Your task to perform on an android device: open app "ZOOM Cloud Meetings" (install if not already installed) and enter user name: "bauxite@icloud.com" and password: "dim" Image 0: 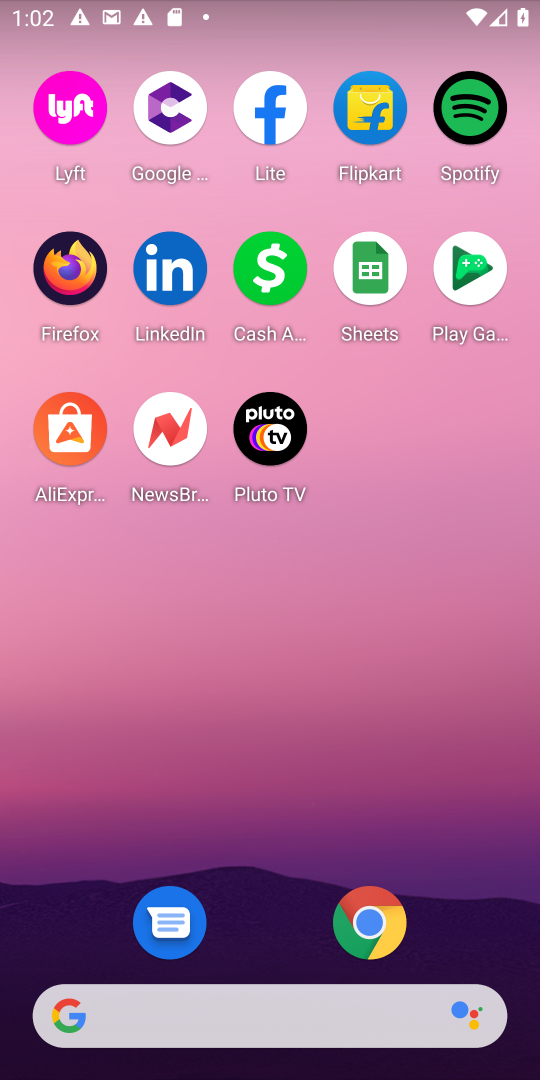
Step 0: drag from (284, 583) to (404, 5)
Your task to perform on an android device: open app "ZOOM Cloud Meetings" (install if not already installed) and enter user name: "bauxite@icloud.com" and password: "dim" Image 1: 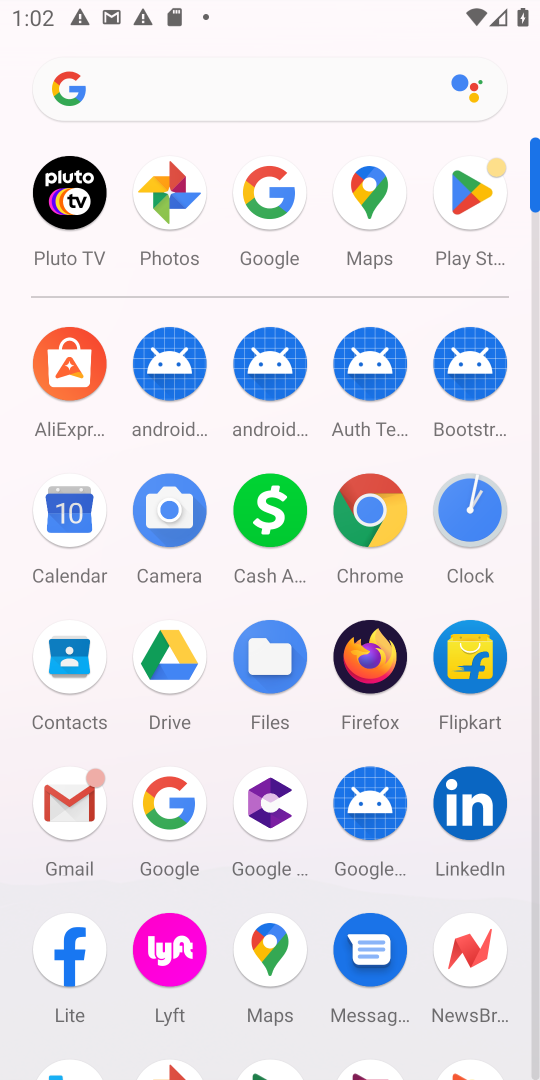
Step 1: click (472, 176)
Your task to perform on an android device: open app "ZOOM Cloud Meetings" (install if not already installed) and enter user name: "bauxite@icloud.com" and password: "dim" Image 2: 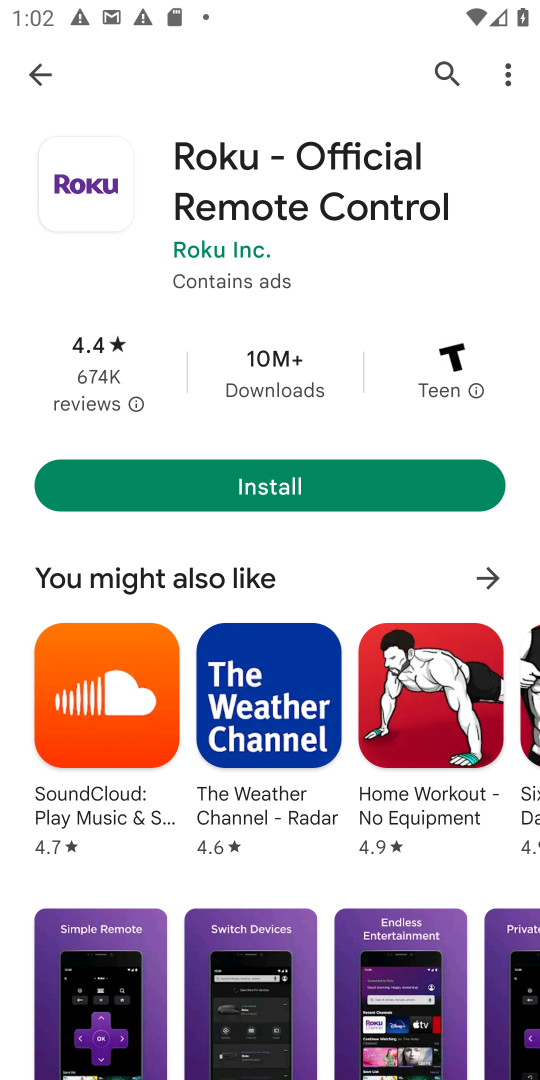
Step 2: click (37, 81)
Your task to perform on an android device: open app "ZOOM Cloud Meetings" (install if not already installed) and enter user name: "bauxite@icloud.com" and password: "dim" Image 3: 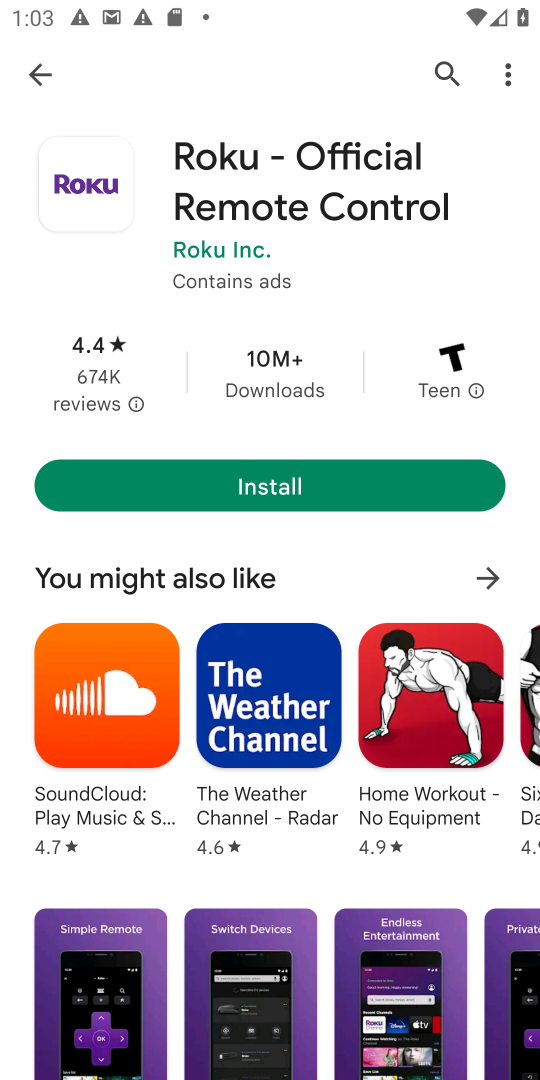
Step 3: click (39, 81)
Your task to perform on an android device: open app "ZOOM Cloud Meetings" (install if not already installed) and enter user name: "bauxite@icloud.com" and password: "dim" Image 4: 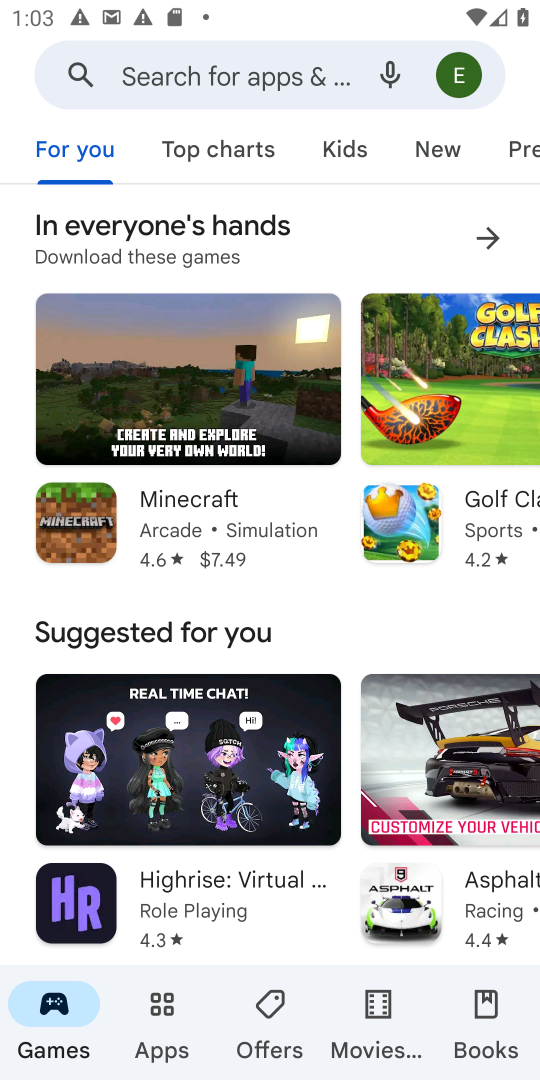
Step 4: click (246, 67)
Your task to perform on an android device: open app "ZOOM Cloud Meetings" (install if not already installed) and enter user name: "bauxite@icloud.com" and password: "dim" Image 5: 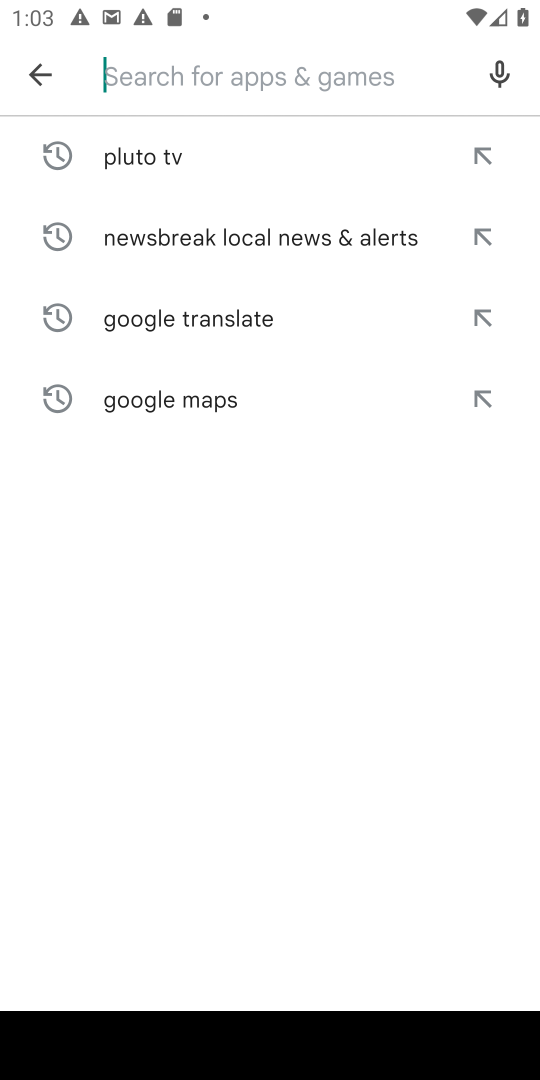
Step 5: type "ZOOM Cloud Meetings"
Your task to perform on an android device: open app "ZOOM Cloud Meetings" (install if not already installed) and enter user name: "bauxite@icloud.com" and password: "dim" Image 6: 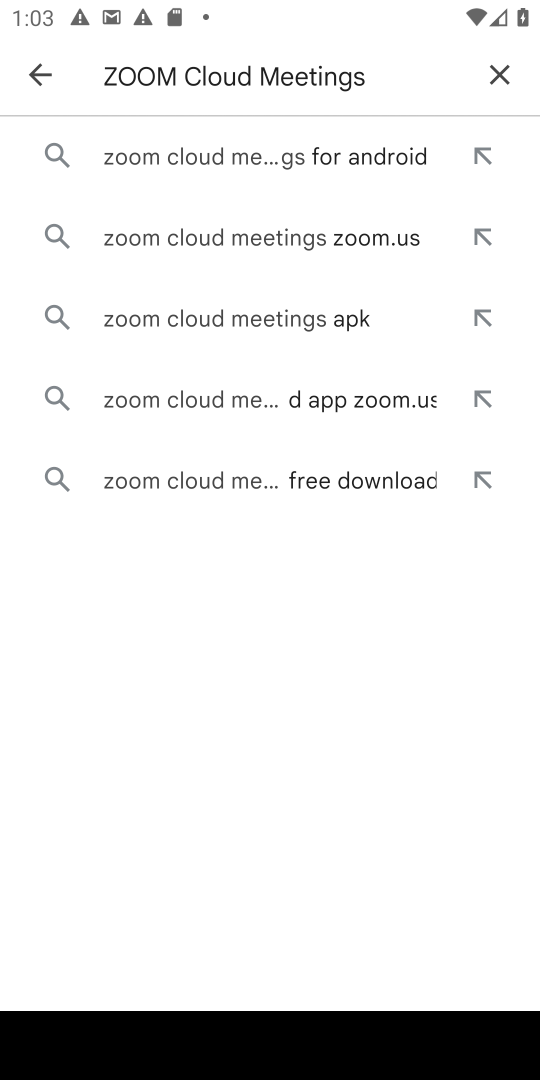
Step 6: click (347, 149)
Your task to perform on an android device: open app "ZOOM Cloud Meetings" (install if not already installed) and enter user name: "bauxite@icloud.com" and password: "dim" Image 7: 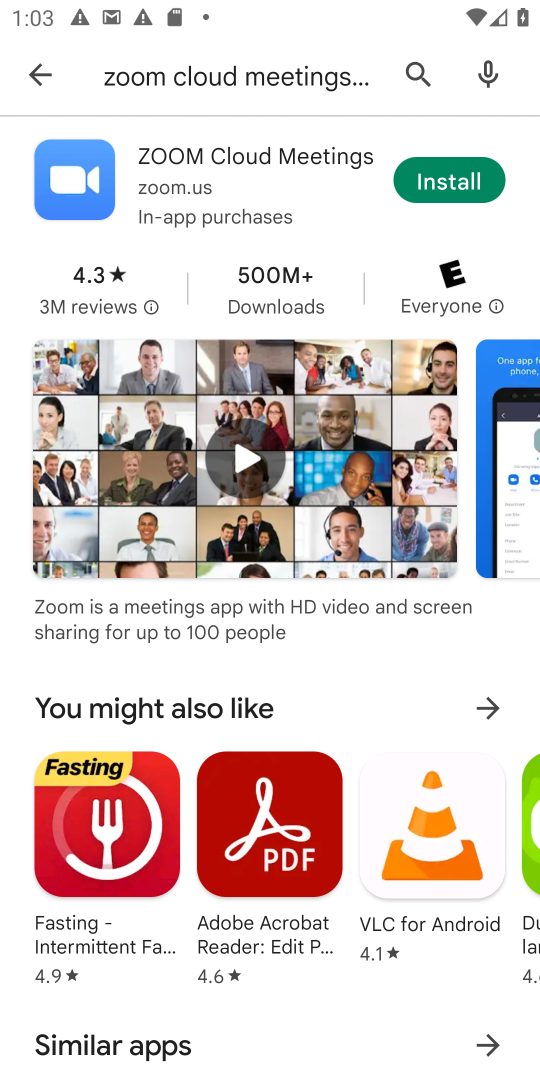
Step 7: click (430, 182)
Your task to perform on an android device: open app "ZOOM Cloud Meetings" (install if not already installed) and enter user name: "bauxite@icloud.com" and password: "dim" Image 8: 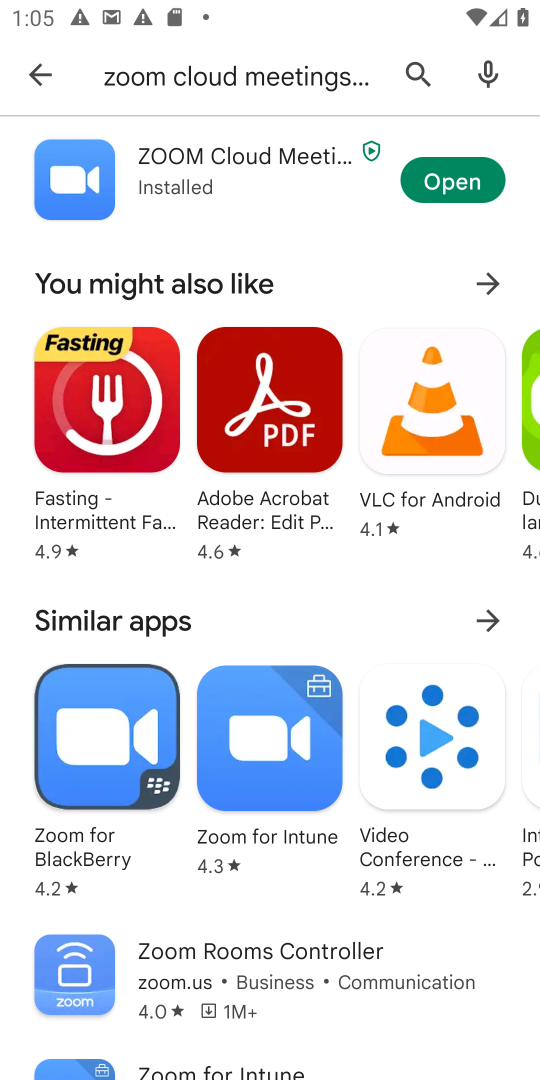
Step 8: click (454, 173)
Your task to perform on an android device: open app "ZOOM Cloud Meetings" (install if not already installed) and enter user name: "bauxite@icloud.com" and password: "dim" Image 9: 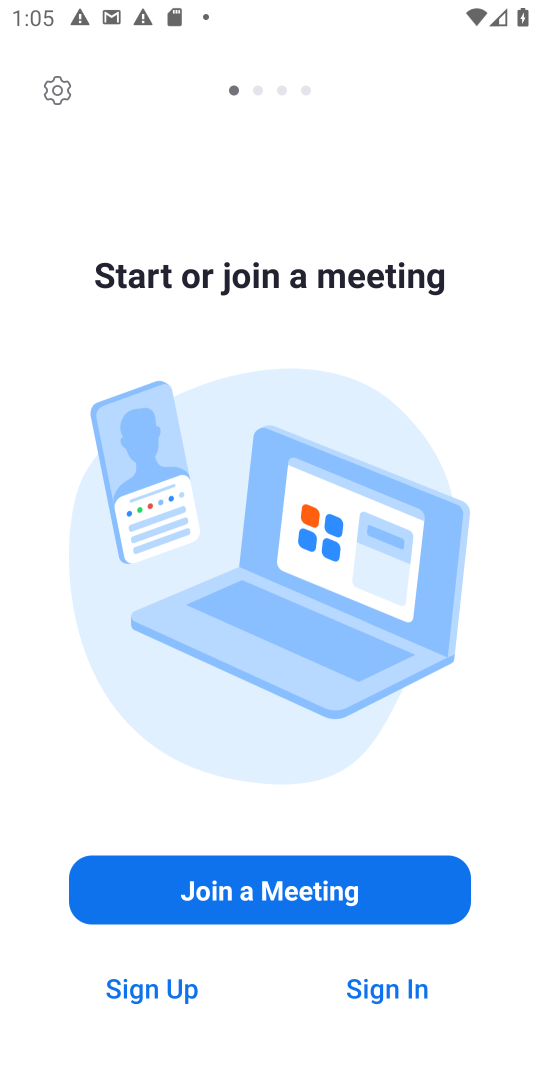
Step 9: click (387, 991)
Your task to perform on an android device: open app "ZOOM Cloud Meetings" (install if not already installed) and enter user name: "bauxite@icloud.com" and password: "dim" Image 10: 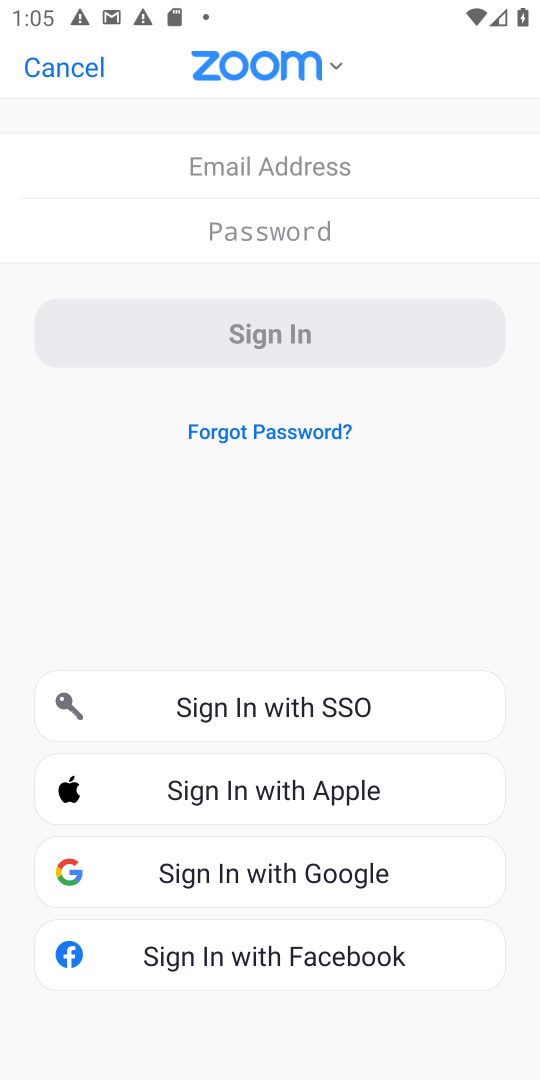
Step 10: click (278, 165)
Your task to perform on an android device: open app "ZOOM Cloud Meetings" (install if not already installed) and enter user name: "bauxite@icloud.com" and password: "dim" Image 11: 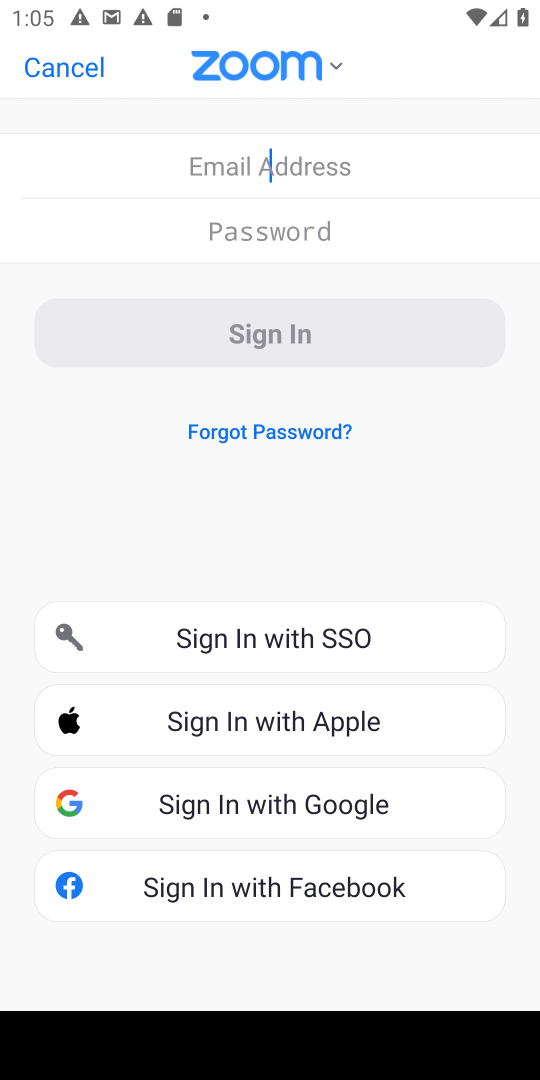
Step 11: type "bauxite@icloud.com"
Your task to perform on an android device: open app "ZOOM Cloud Meetings" (install if not already installed) and enter user name: "bauxite@icloud.com" and password: "dim" Image 12: 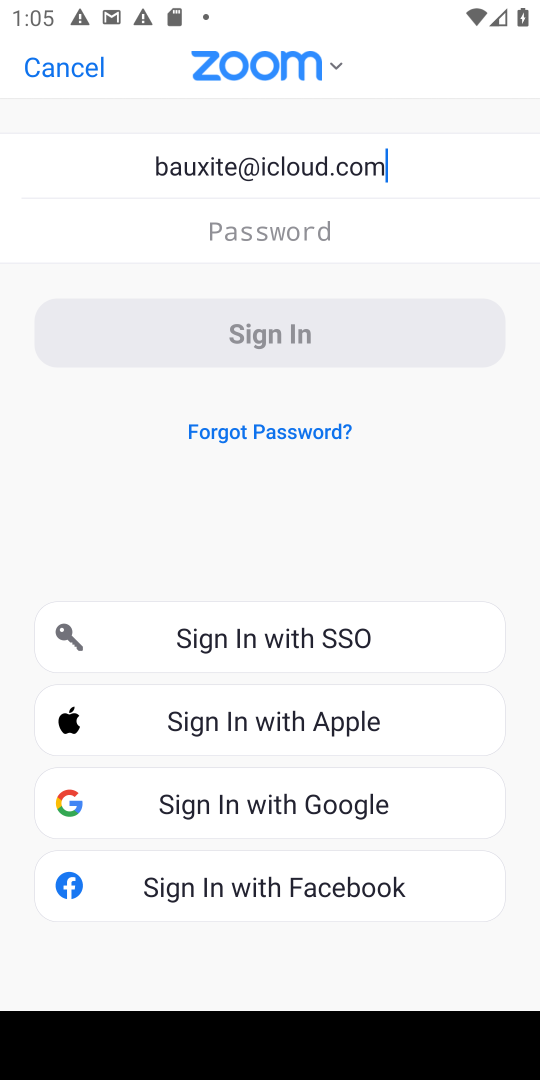
Step 12: click (289, 228)
Your task to perform on an android device: open app "ZOOM Cloud Meetings" (install if not already installed) and enter user name: "bauxite@icloud.com" and password: "dim" Image 13: 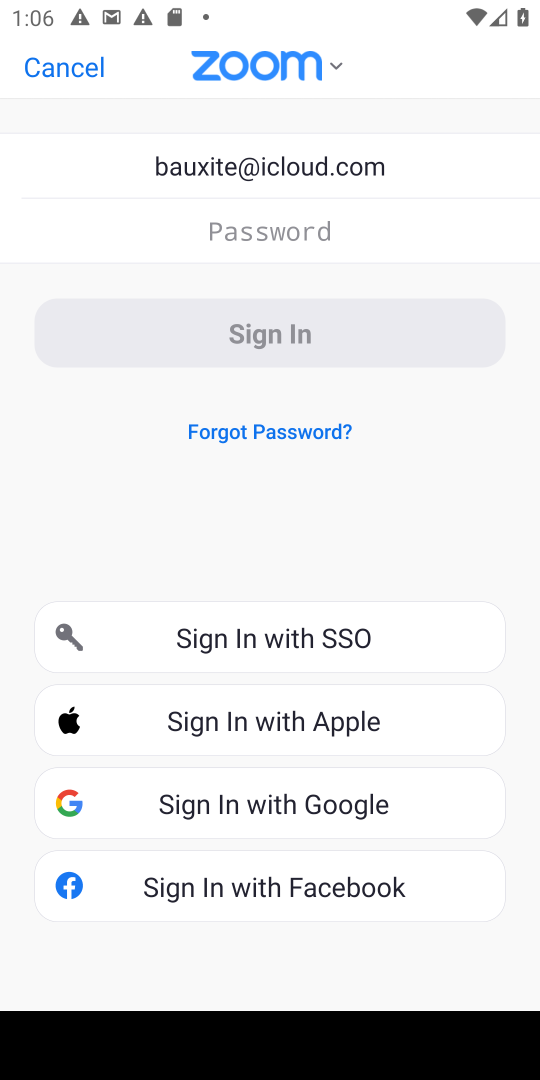
Step 13: type "dim"
Your task to perform on an android device: open app "ZOOM Cloud Meetings" (install if not already installed) and enter user name: "bauxite@icloud.com" and password: "dim" Image 14: 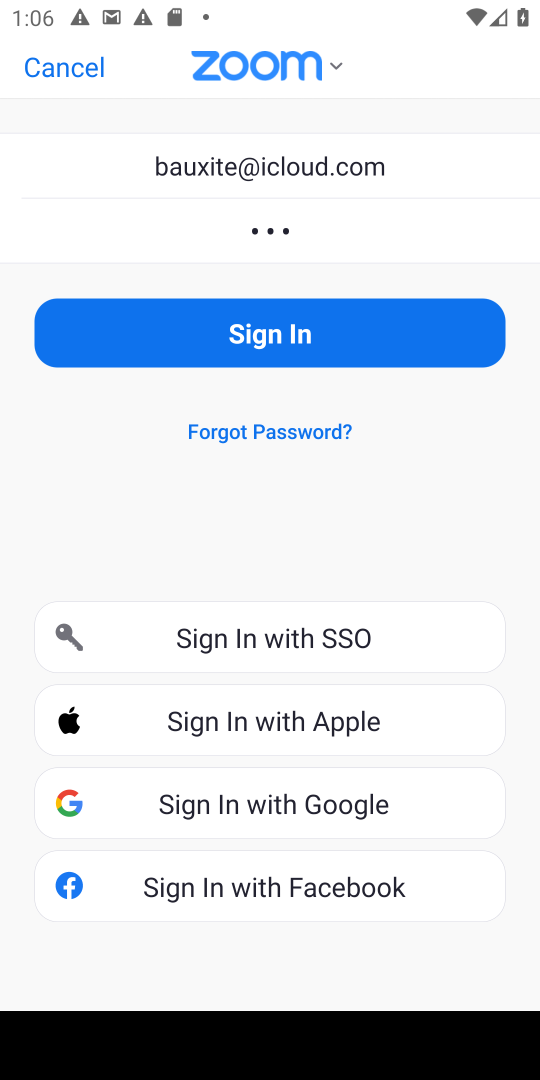
Step 14: task complete